Your task to perform on an android device: Go to settings Image 0: 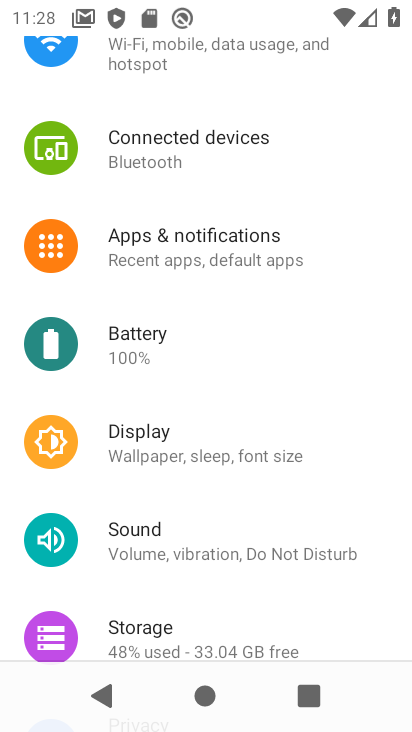
Step 0: click (213, 131)
Your task to perform on an android device: Go to settings Image 1: 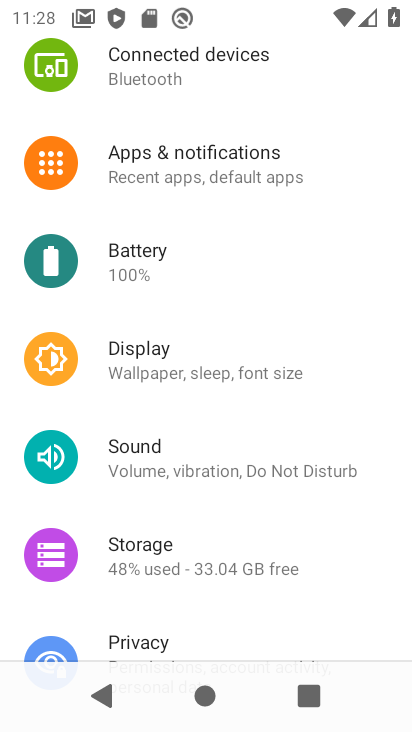
Step 1: task complete